Your task to perform on an android device: delete a single message in the gmail app Image 0: 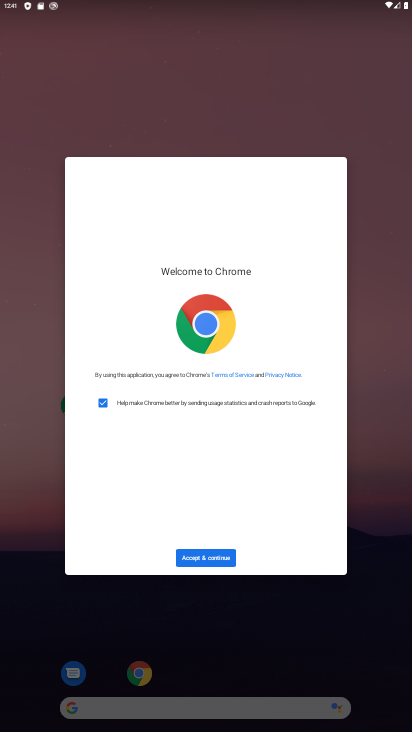
Step 0: press home button
Your task to perform on an android device: delete a single message in the gmail app Image 1: 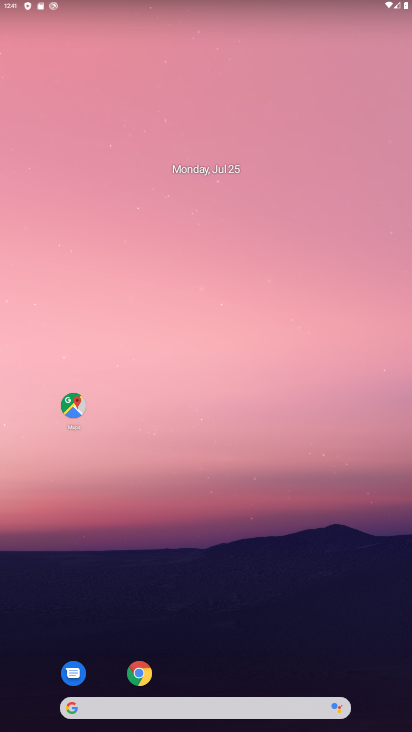
Step 1: drag from (231, 550) to (240, 12)
Your task to perform on an android device: delete a single message in the gmail app Image 2: 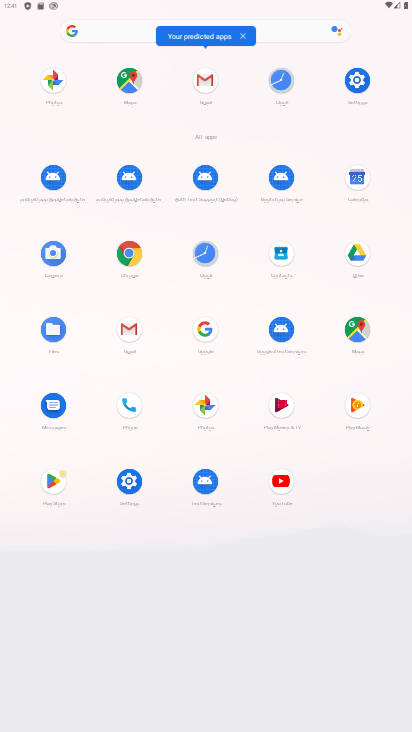
Step 2: click (122, 324)
Your task to perform on an android device: delete a single message in the gmail app Image 3: 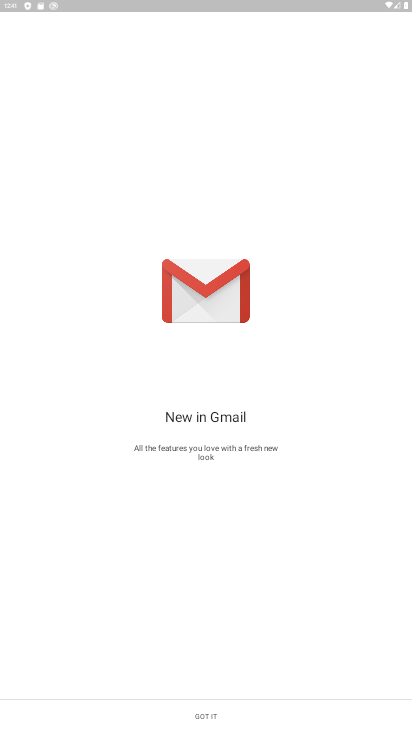
Step 3: click (199, 715)
Your task to perform on an android device: delete a single message in the gmail app Image 4: 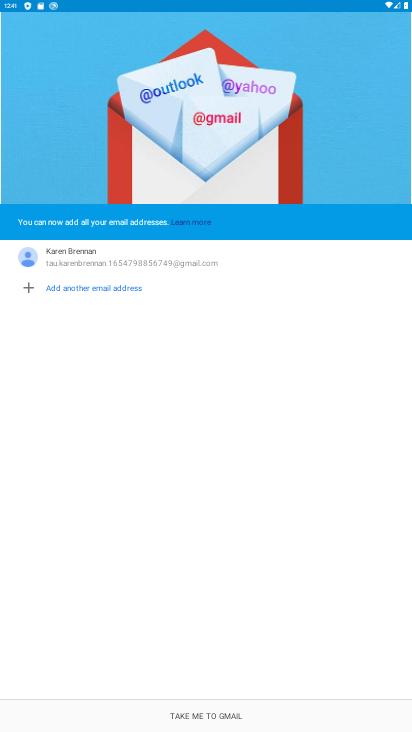
Step 4: click (200, 712)
Your task to perform on an android device: delete a single message in the gmail app Image 5: 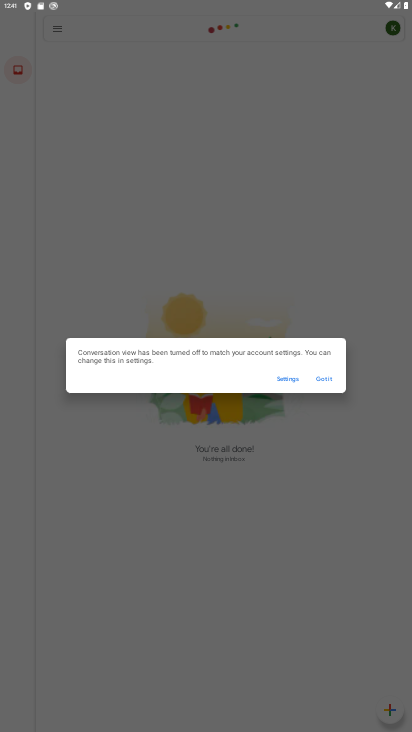
Step 5: click (326, 382)
Your task to perform on an android device: delete a single message in the gmail app Image 6: 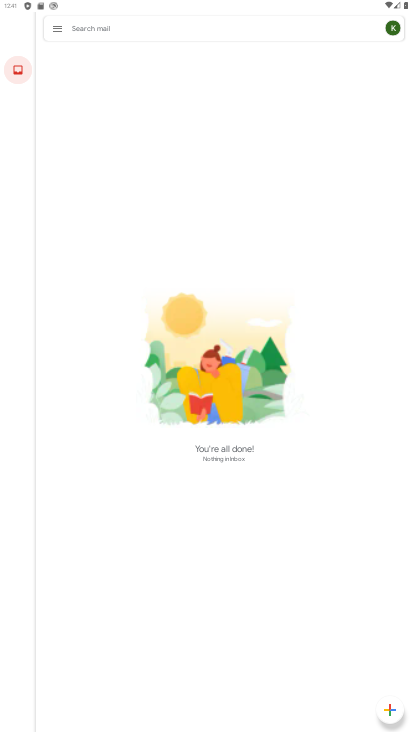
Step 6: click (56, 23)
Your task to perform on an android device: delete a single message in the gmail app Image 7: 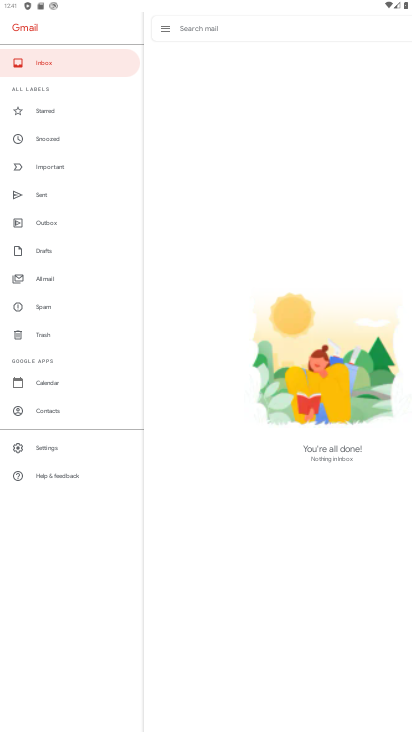
Step 7: click (45, 274)
Your task to perform on an android device: delete a single message in the gmail app Image 8: 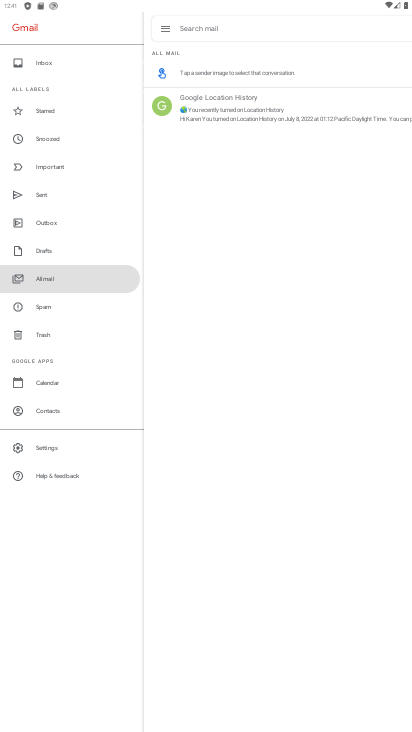
Step 8: click (246, 104)
Your task to perform on an android device: delete a single message in the gmail app Image 9: 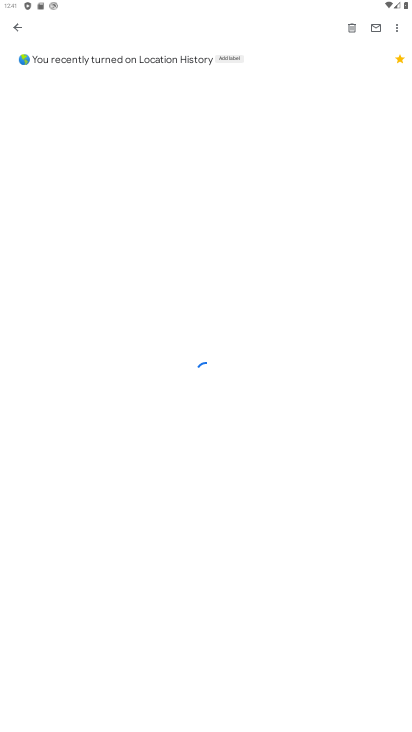
Step 9: click (347, 24)
Your task to perform on an android device: delete a single message in the gmail app Image 10: 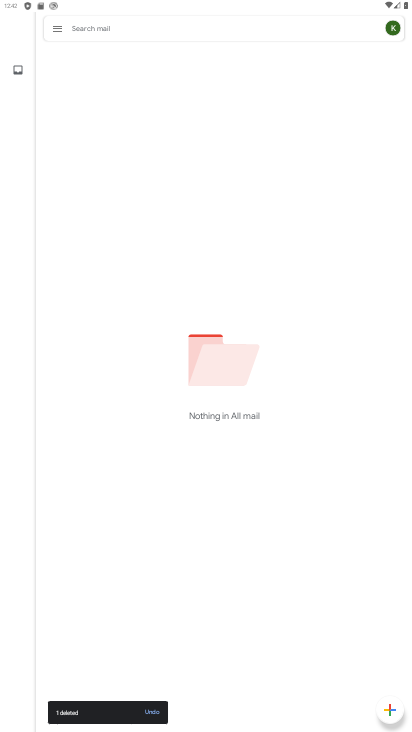
Step 10: task complete